Your task to perform on an android device: turn off wifi Image 0: 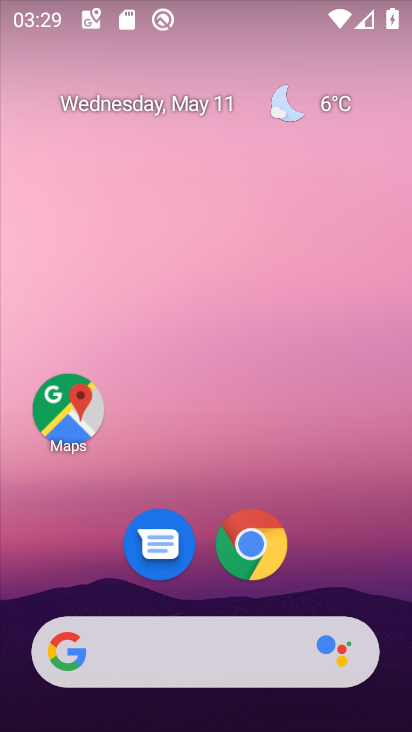
Step 0: drag from (332, 596) to (395, 145)
Your task to perform on an android device: turn off wifi Image 1: 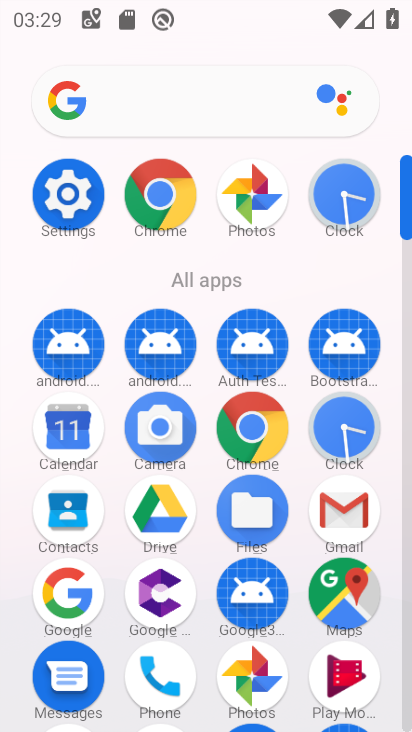
Step 1: click (80, 192)
Your task to perform on an android device: turn off wifi Image 2: 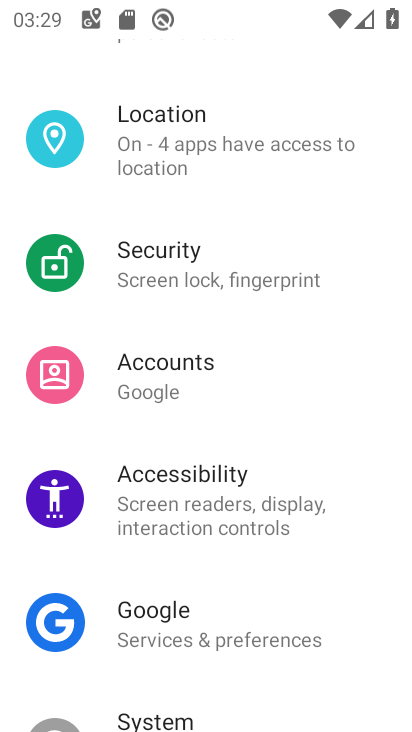
Step 2: drag from (217, 294) to (287, 587)
Your task to perform on an android device: turn off wifi Image 3: 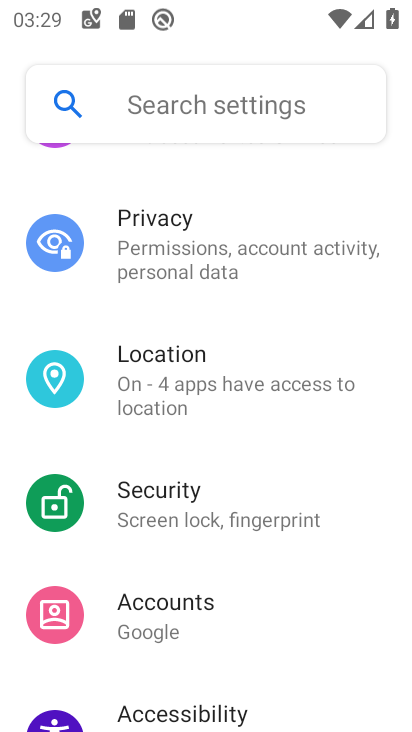
Step 3: drag from (266, 345) to (284, 703)
Your task to perform on an android device: turn off wifi Image 4: 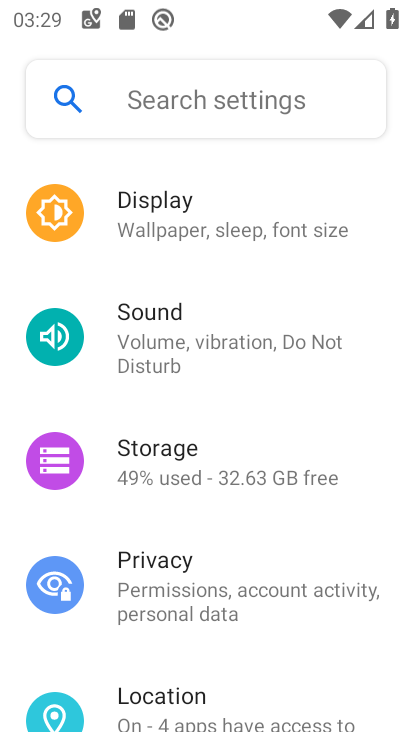
Step 4: drag from (208, 233) to (227, 659)
Your task to perform on an android device: turn off wifi Image 5: 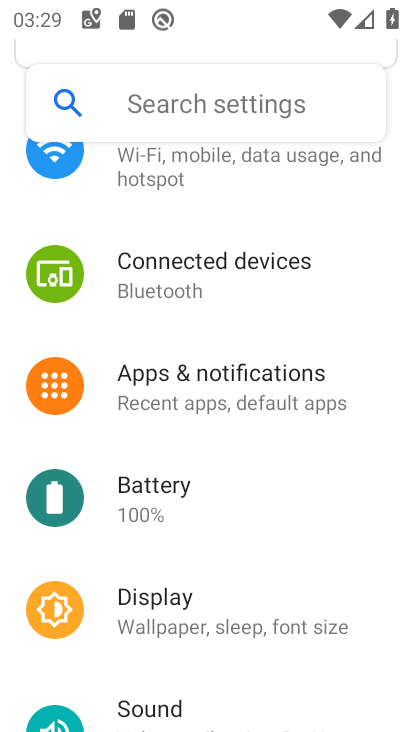
Step 5: drag from (204, 300) to (198, 611)
Your task to perform on an android device: turn off wifi Image 6: 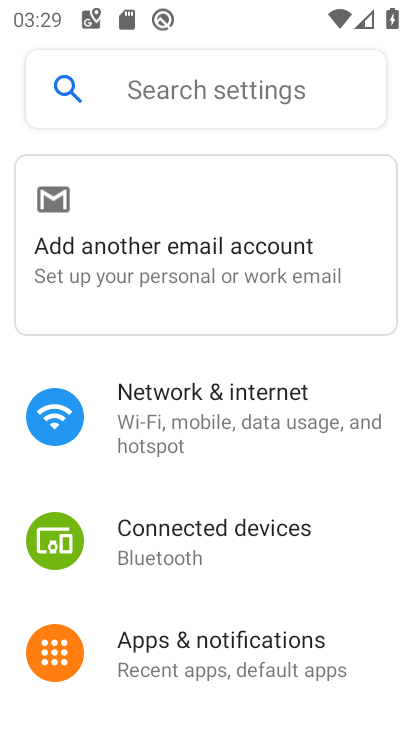
Step 6: click (189, 380)
Your task to perform on an android device: turn off wifi Image 7: 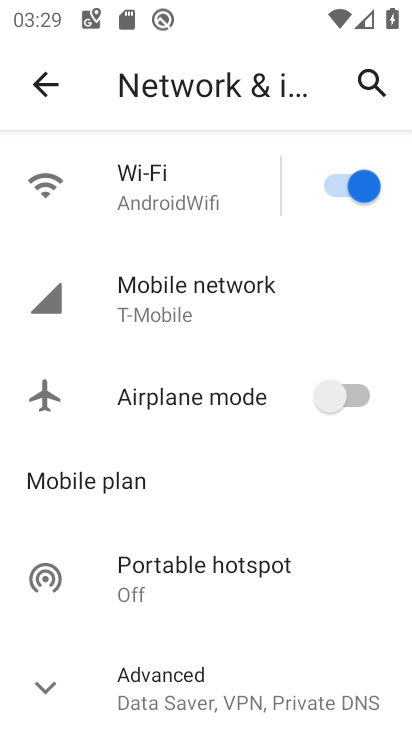
Step 7: click (150, 190)
Your task to perform on an android device: turn off wifi Image 8: 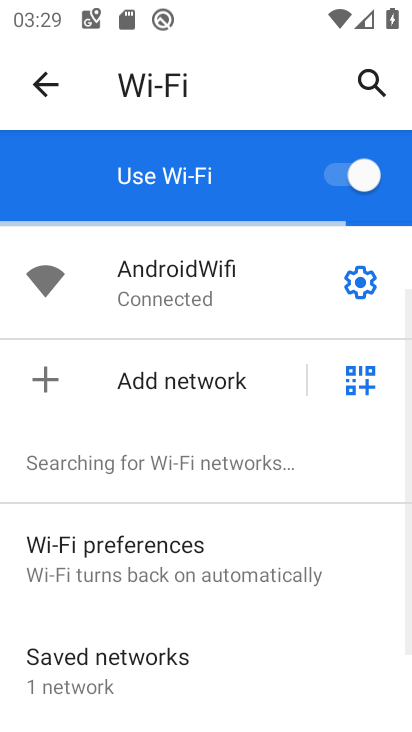
Step 8: click (329, 181)
Your task to perform on an android device: turn off wifi Image 9: 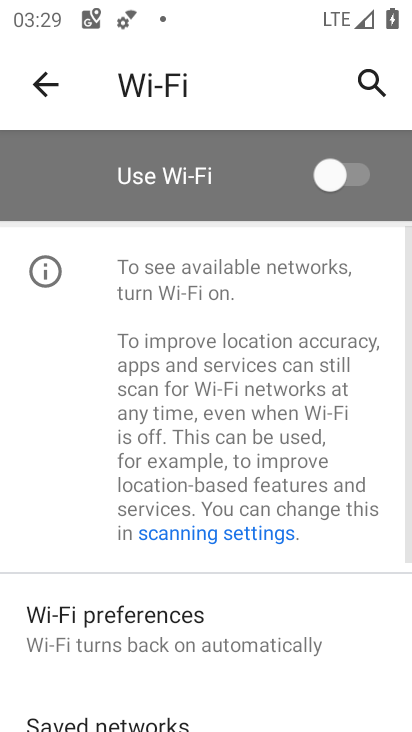
Step 9: task complete